Your task to perform on an android device: allow notifications from all sites in the chrome app Image 0: 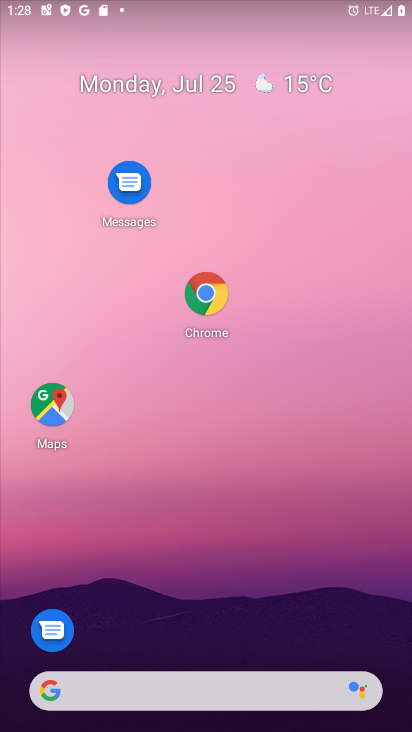
Step 0: drag from (330, 632) to (308, 142)
Your task to perform on an android device: allow notifications from all sites in the chrome app Image 1: 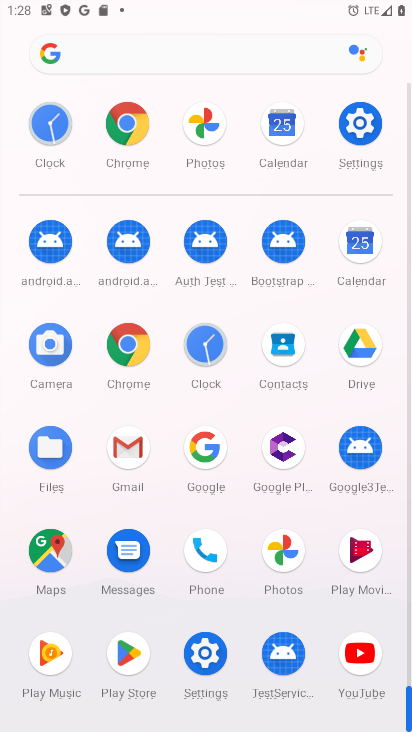
Step 1: click (116, 323)
Your task to perform on an android device: allow notifications from all sites in the chrome app Image 2: 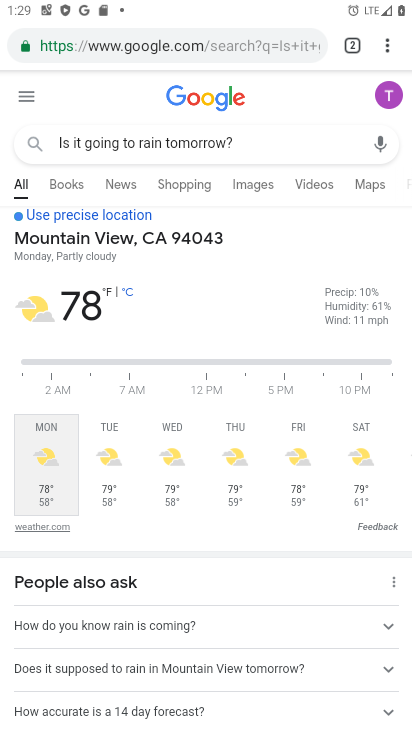
Step 2: press home button
Your task to perform on an android device: allow notifications from all sites in the chrome app Image 3: 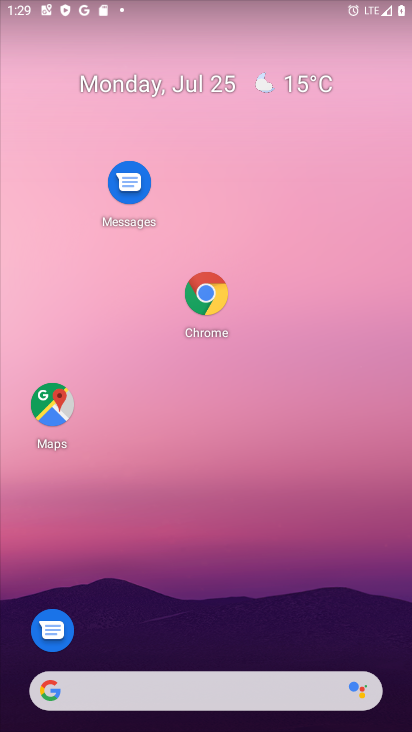
Step 3: click (184, 283)
Your task to perform on an android device: allow notifications from all sites in the chrome app Image 4: 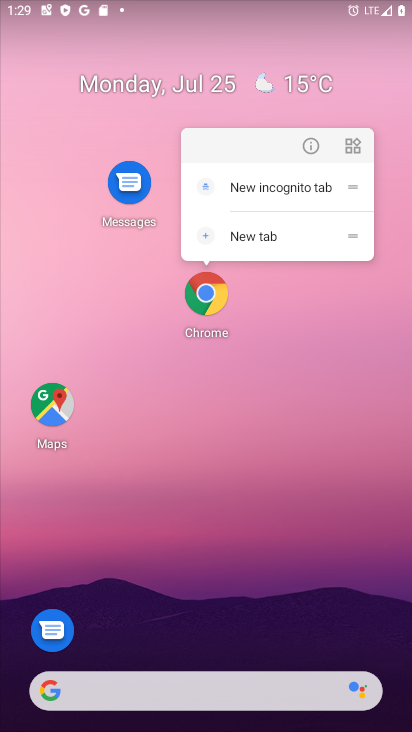
Step 4: click (313, 146)
Your task to perform on an android device: allow notifications from all sites in the chrome app Image 5: 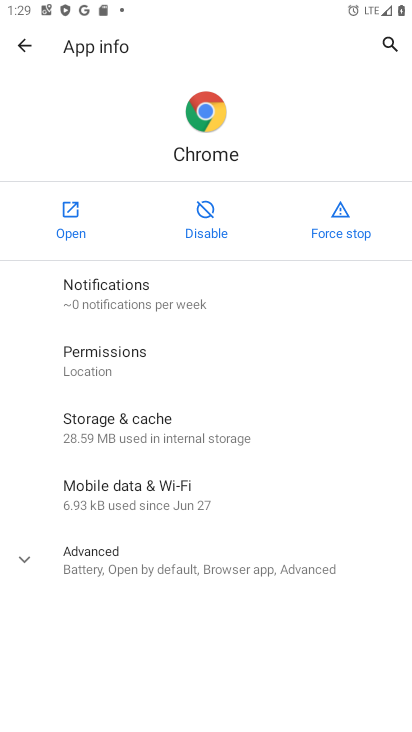
Step 5: click (69, 283)
Your task to perform on an android device: allow notifications from all sites in the chrome app Image 6: 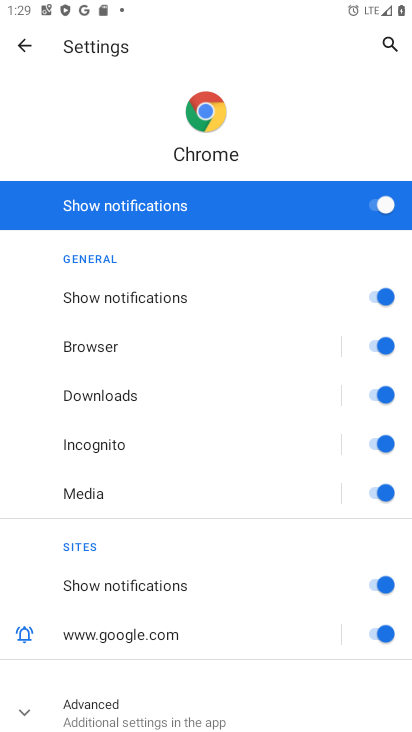
Step 6: click (20, 56)
Your task to perform on an android device: allow notifications from all sites in the chrome app Image 7: 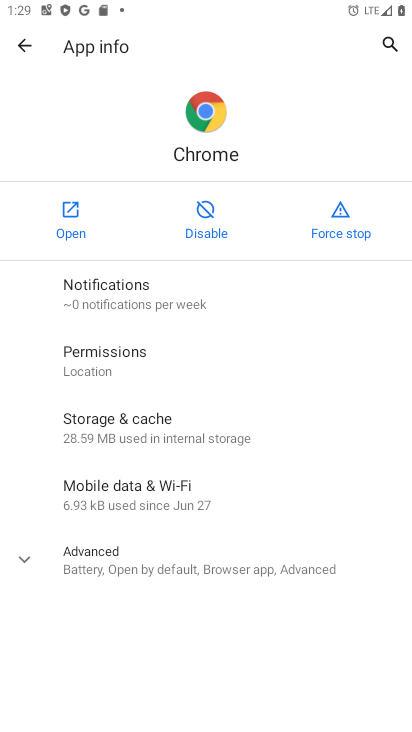
Step 7: click (98, 364)
Your task to perform on an android device: allow notifications from all sites in the chrome app Image 8: 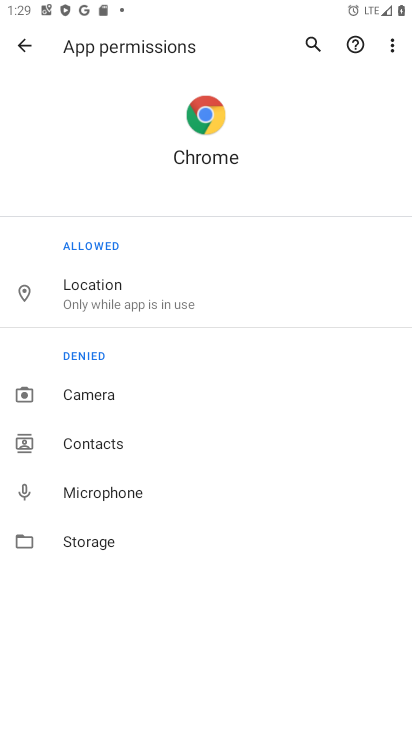
Step 8: click (115, 397)
Your task to perform on an android device: allow notifications from all sites in the chrome app Image 9: 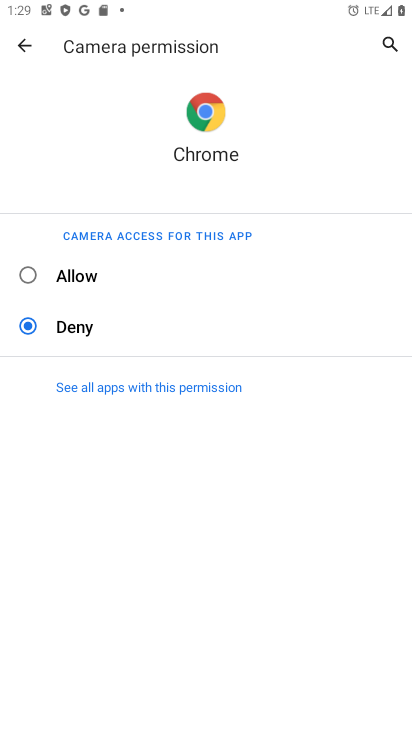
Step 9: click (23, 275)
Your task to perform on an android device: allow notifications from all sites in the chrome app Image 10: 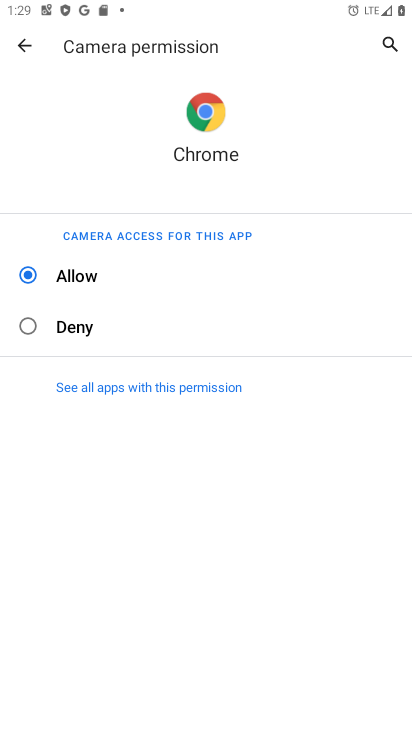
Step 10: click (23, 55)
Your task to perform on an android device: allow notifications from all sites in the chrome app Image 11: 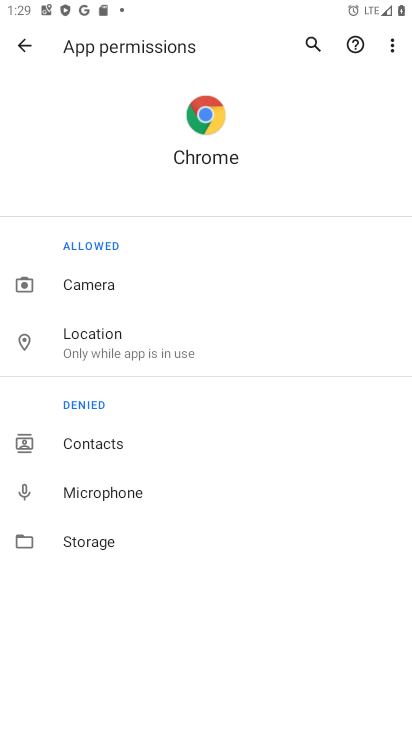
Step 11: click (102, 456)
Your task to perform on an android device: allow notifications from all sites in the chrome app Image 12: 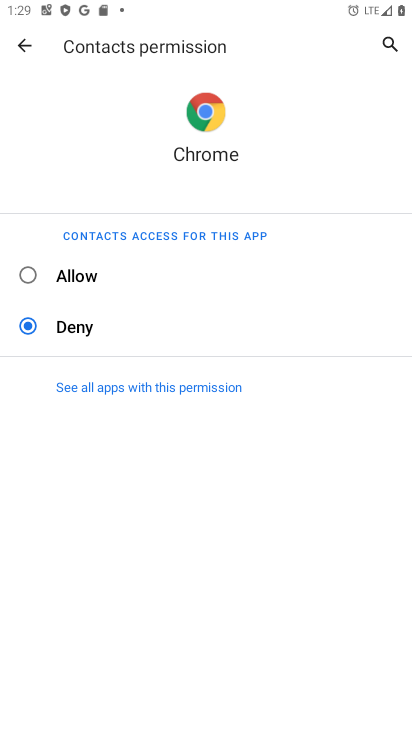
Step 12: click (44, 256)
Your task to perform on an android device: allow notifications from all sites in the chrome app Image 13: 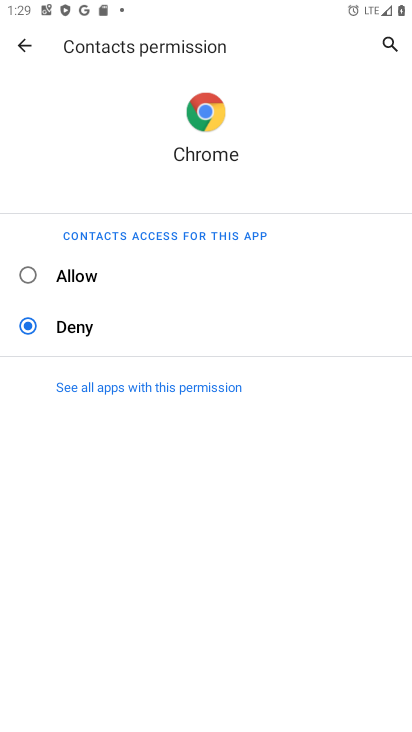
Step 13: click (38, 270)
Your task to perform on an android device: allow notifications from all sites in the chrome app Image 14: 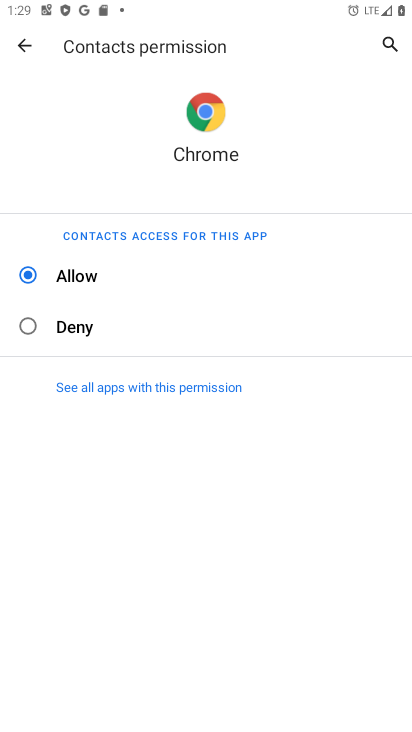
Step 14: click (23, 56)
Your task to perform on an android device: allow notifications from all sites in the chrome app Image 15: 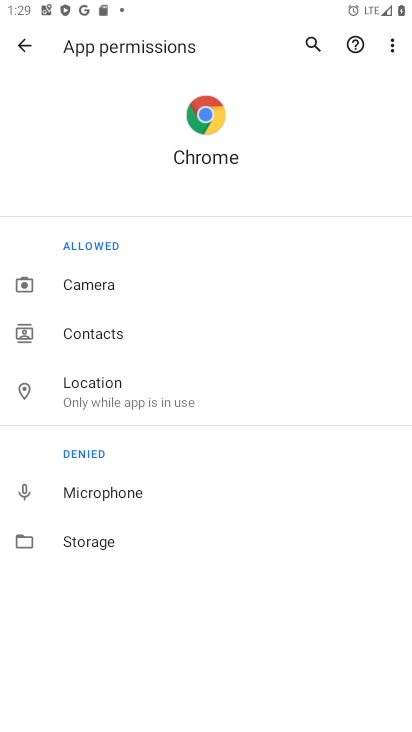
Step 15: click (43, 489)
Your task to perform on an android device: allow notifications from all sites in the chrome app Image 16: 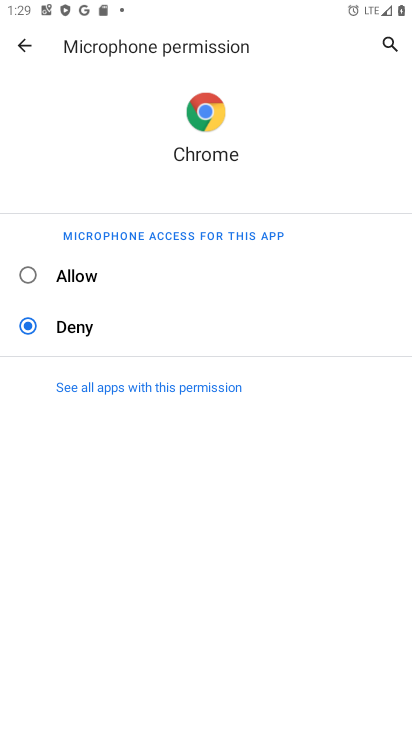
Step 16: click (38, 260)
Your task to perform on an android device: allow notifications from all sites in the chrome app Image 17: 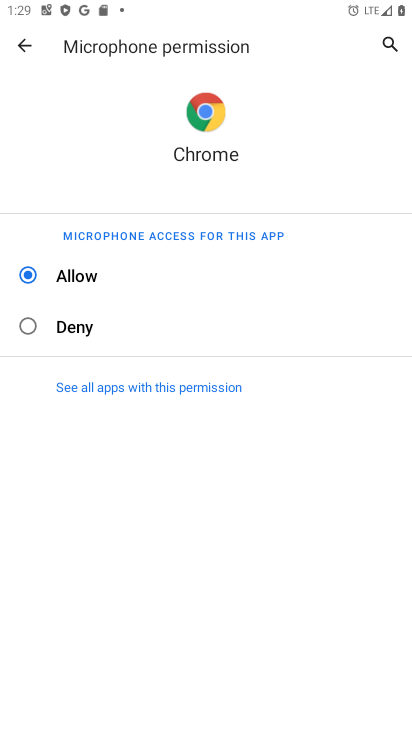
Step 17: click (23, 50)
Your task to perform on an android device: allow notifications from all sites in the chrome app Image 18: 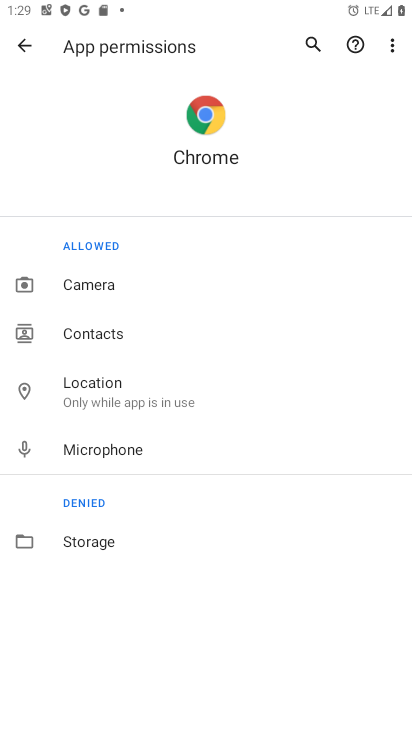
Step 18: click (12, 522)
Your task to perform on an android device: allow notifications from all sites in the chrome app Image 19: 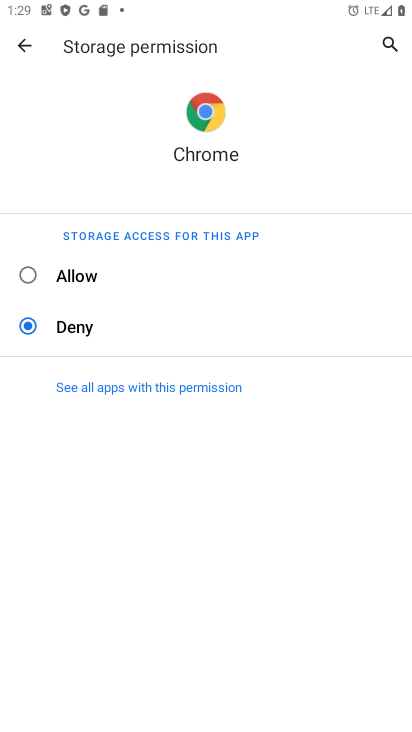
Step 19: click (26, 268)
Your task to perform on an android device: allow notifications from all sites in the chrome app Image 20: 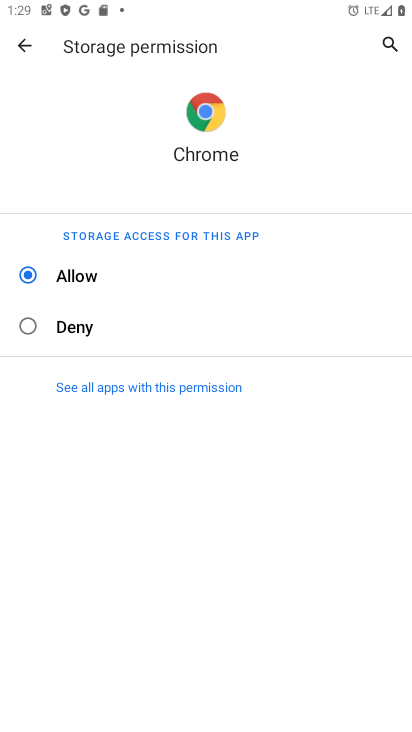
Step 20: click (22, 52)
Your task to perform on an android device: allow notifications from all sites in the chrome app Image 21: 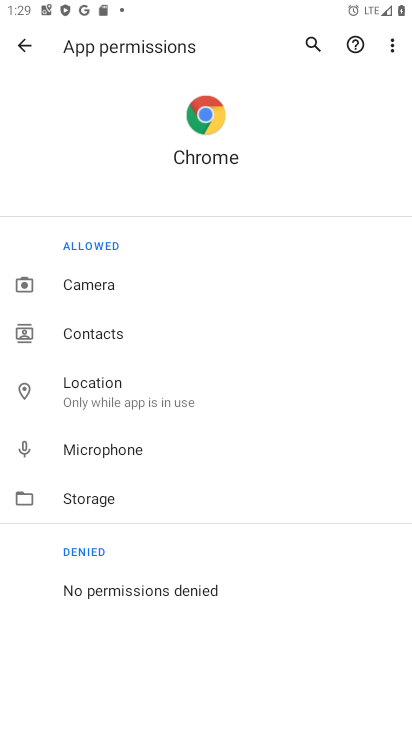
Step 21: task complete